Your task to perform on an android device: toggle show notifications on the lock screen Image 0: 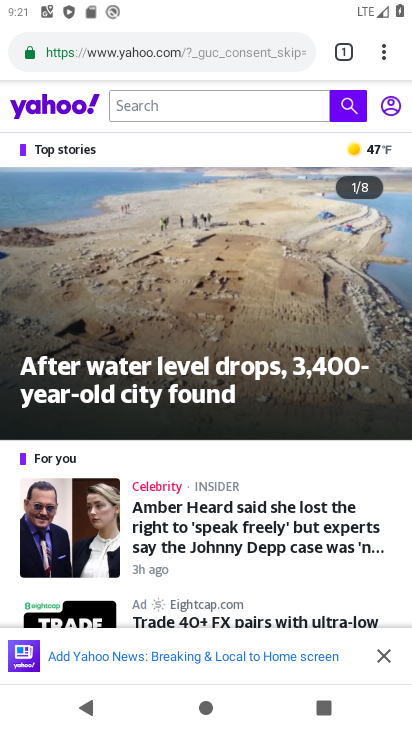
Step 0: press home button
Your task to perform on an android device: toggle show notifications on the lock screen Image 1: 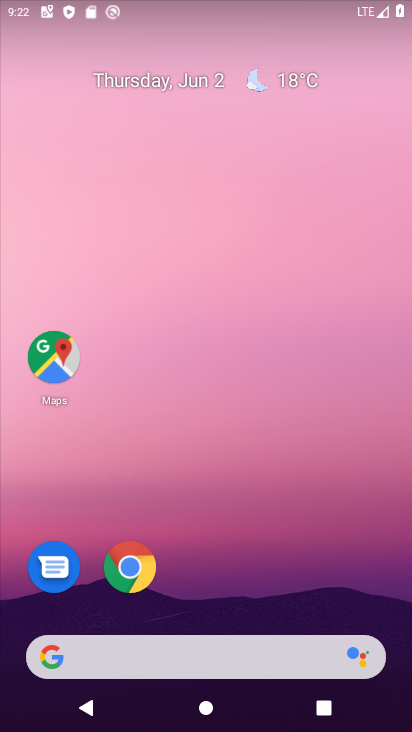
Step 1: drag from (260, 588) to (296, 139)
Your task to perform on an android device: toggle show notifications on the lock screen Image 2: 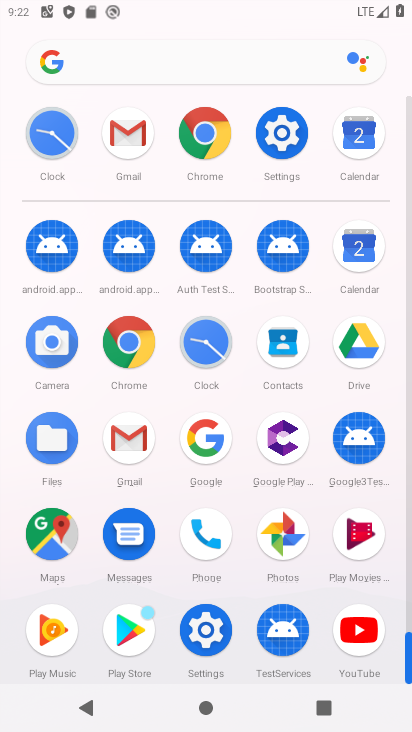
Step 2: click (288, 121)
Your task to perform on an android device: toggle show notifications on the lock screen Image 3: 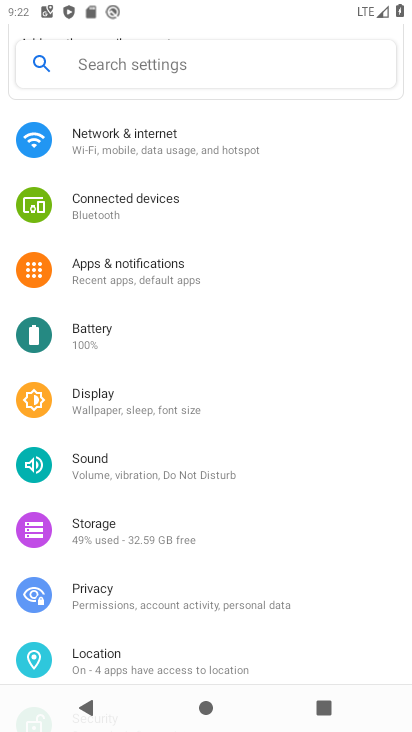
Step 3: click (165, 261)
Your task to perform on an android device: toggle show notifications on the lock screen Image 4: 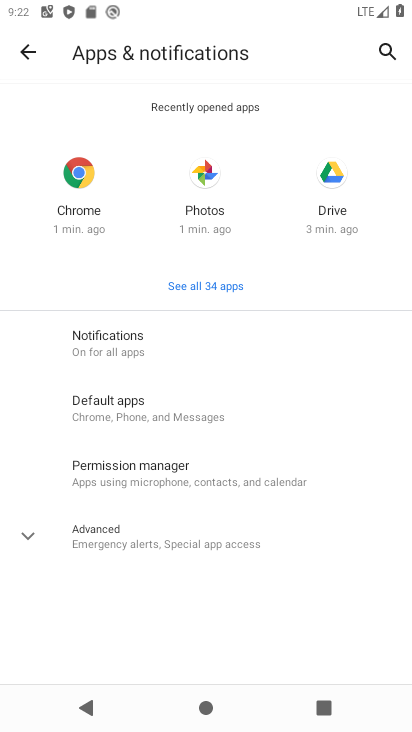
Step 4: click (138, 338)
Your task to perform on an android device: toggle show notifications on the lock screen Image 5: 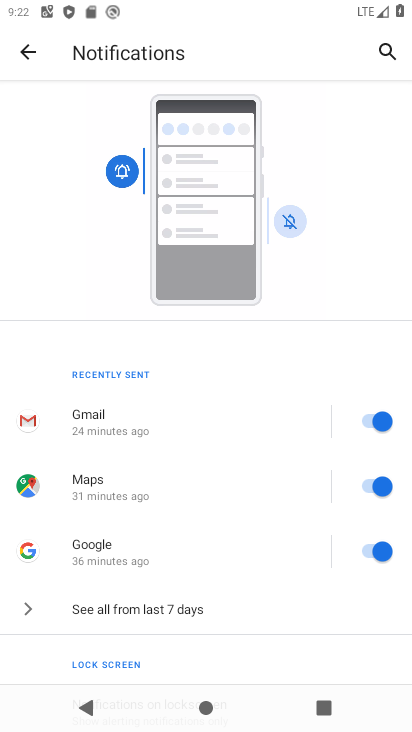
Step 5: drag from (180, 619) to (187, 263)
Your task to perform on an android device: toggle show notifications on the lock screen Image 6: 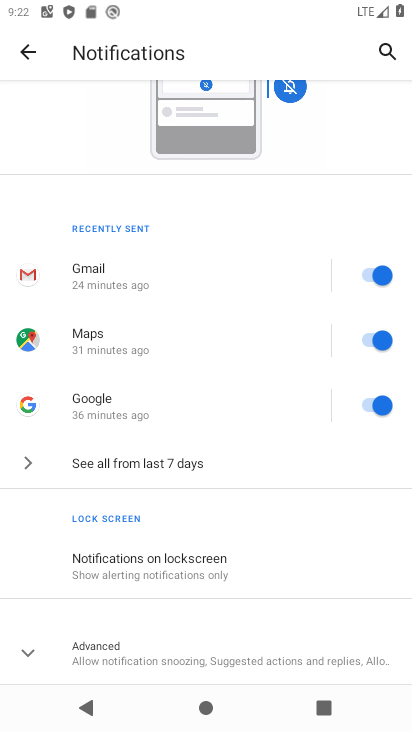
Step 6: click (203, 561)
Your task to perform on an android device: toggle show notifications on the lock screen Image 7: 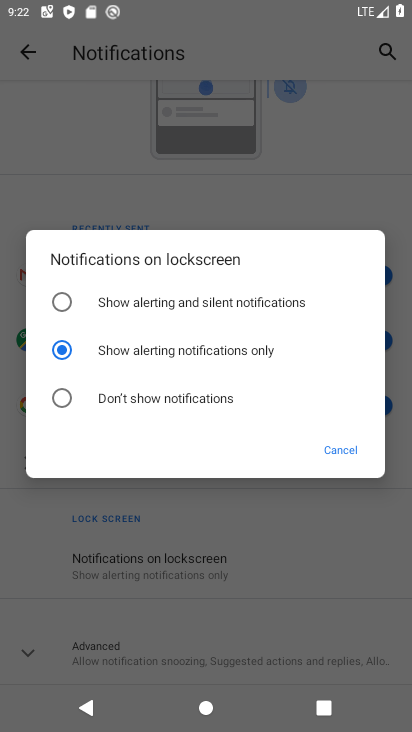
Step 7: click (60, 305)
Your task to perform on an android device: toggle show notifications on the lock screen Image 8: 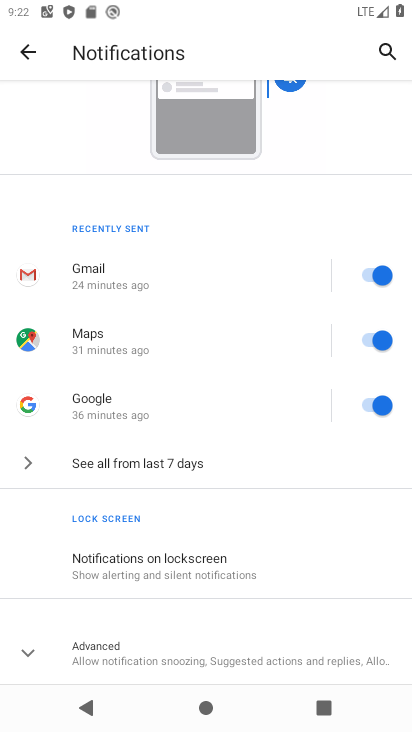
Step 8: task complete